Your task to perform on an android device: Open settings Image 0: 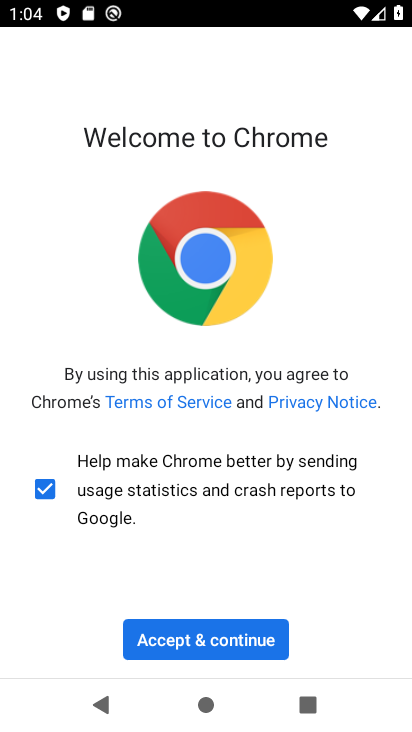
Step 0: press home button
Your task to perform on an android device: Open settings Image 1: 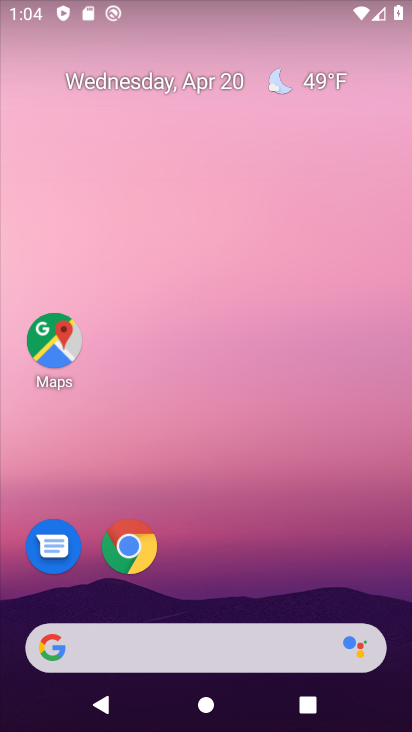
Step 1: drag from (261, 538) to (296, 182)
Your task to perform on an android device: Open settings Image 2: 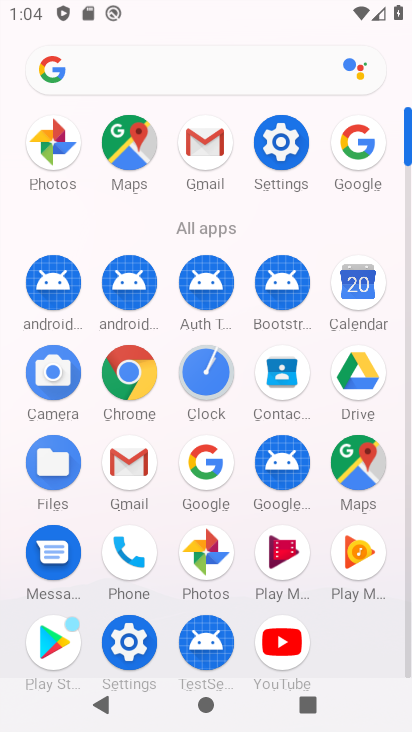
Step 2: click (286, 140)
Your task to perform on an android device: Open settings Image 3: 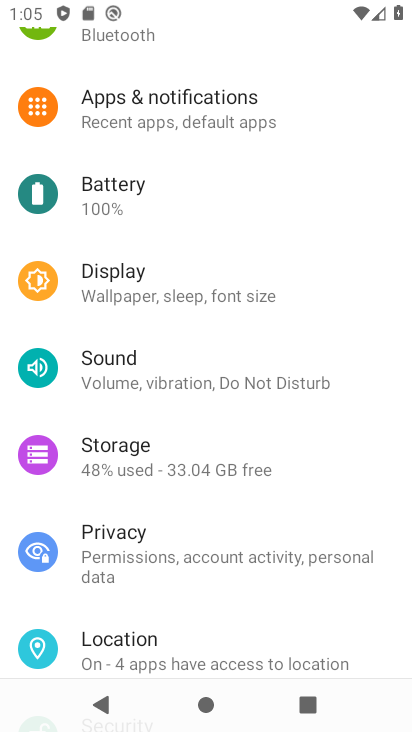
Step 3: task complete